Your task to perform on an android device: Open display settings Image 0: 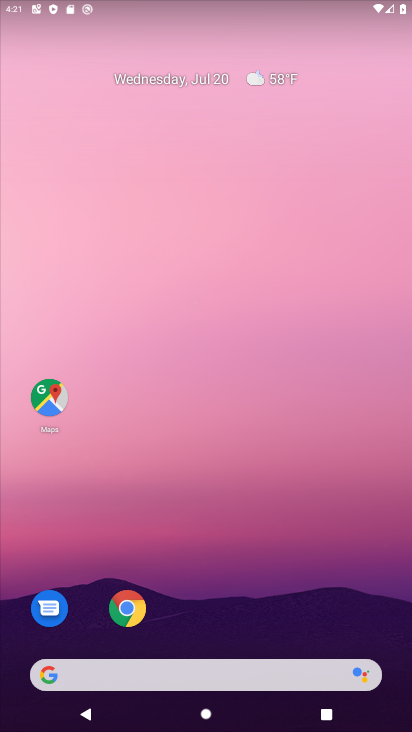
Step 0: drag from (201, 656) to (148, 150)
Your task to perform on an android device: Open display settings Image 1: 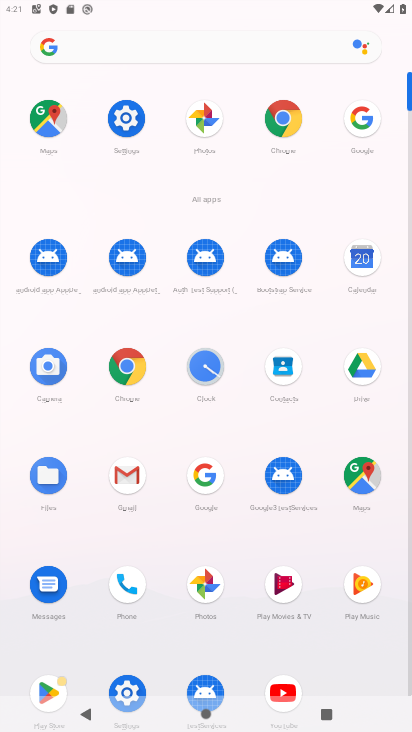
Step 1: click (122, 685)
Your task to perform on an android device: Open display settings Image 2: 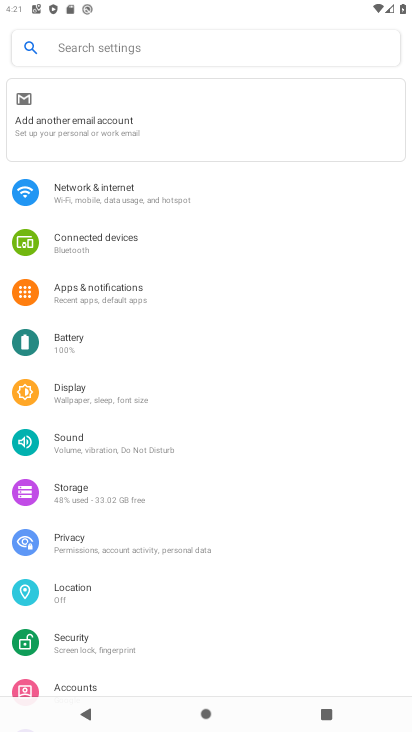
Step 2: click (79, 399)
Your task to perform on an android device: Open display settings Image 3: 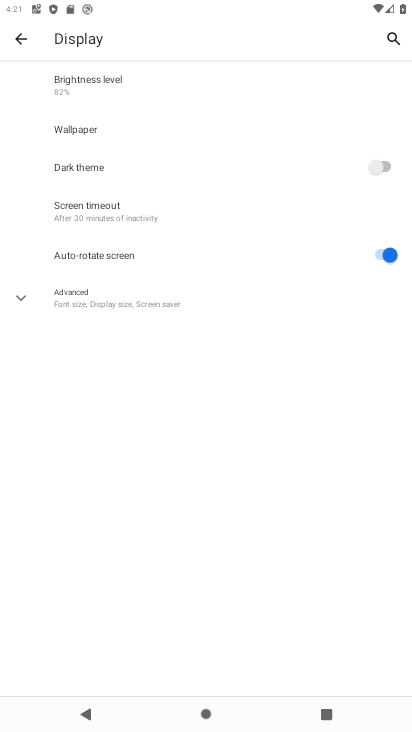
Step 3: click (55, 313)
Your task to perform on an android device: Open display settings Image 4: 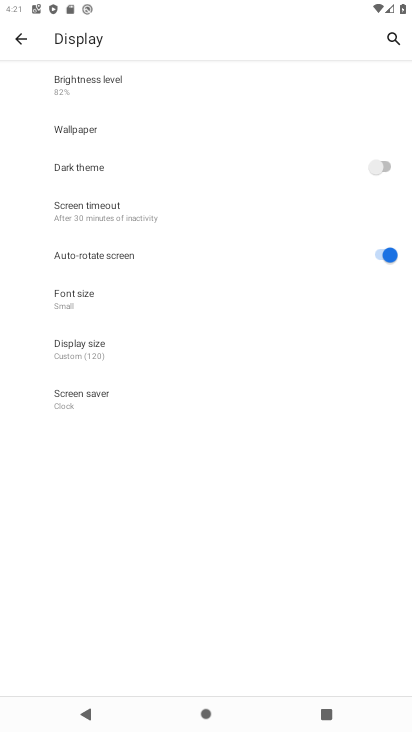
Step 4: click (120, 349)
Your task to perform on an android device: Open display settings Image 5: 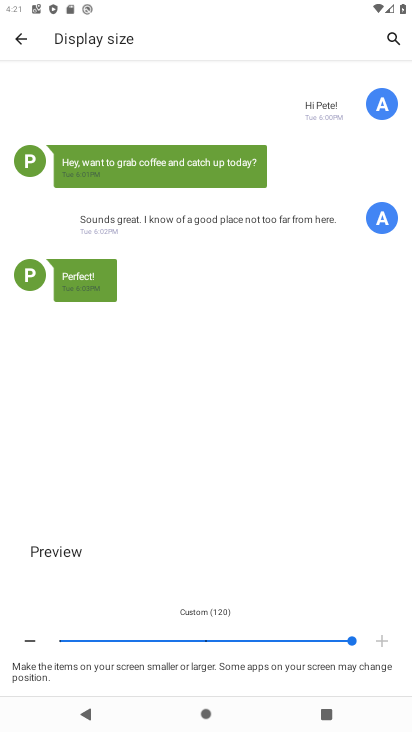
Step 5: task complete